Your task to perform on an android device: Open Google Chrome and open the bookmarks view Image 0: 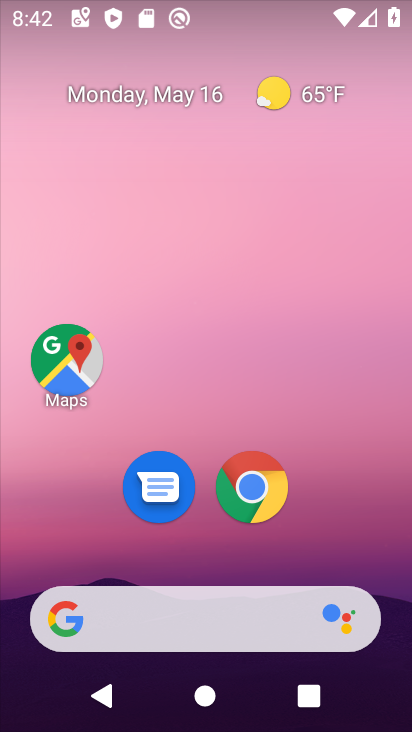
Step 0: drag from (333, 552) to (339, 149)
Your task to perform on an android device: Open Google Chrome and open the bookmarks view Image 1: 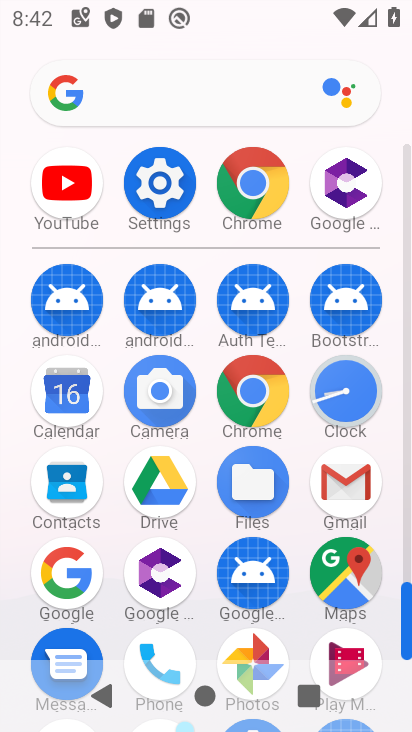
Step 1: click (236, 182)
Your task to perform on an android device: Open Google Chrome and open the bookmarks view Image 2: 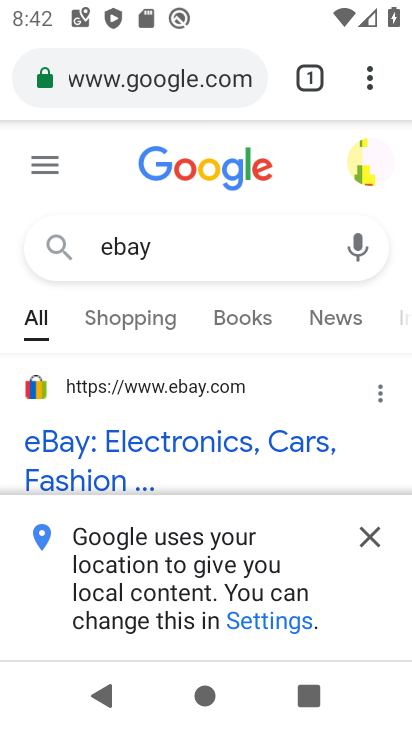
Step 2: click (374, 87)
Your task to perform on an android device: Open Google Chrome and open the bookmarks view Image 3: 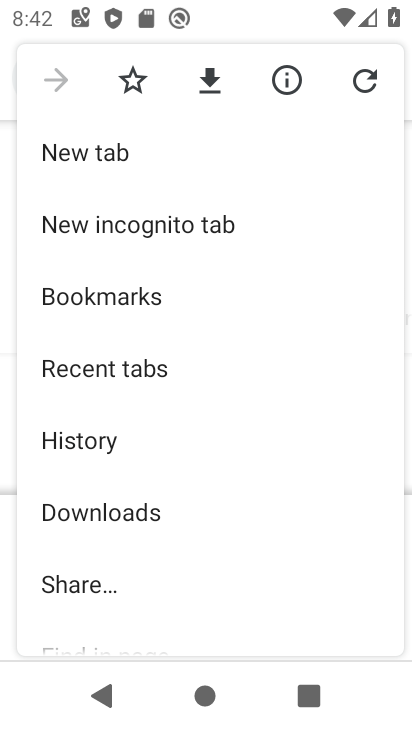
Step 3: click (152, 312)
Your task to perform on an android device: Open Google Chrome and open the bookmarks view Image 4: 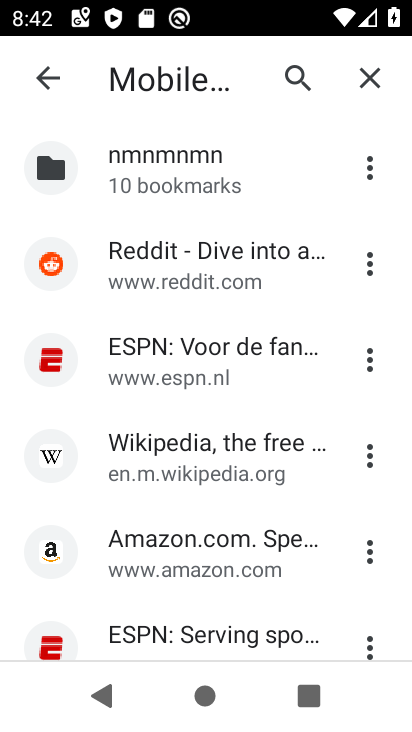
Step 4: task complete